Your task to perform on an android device: Go to Reddit.com Image 0: 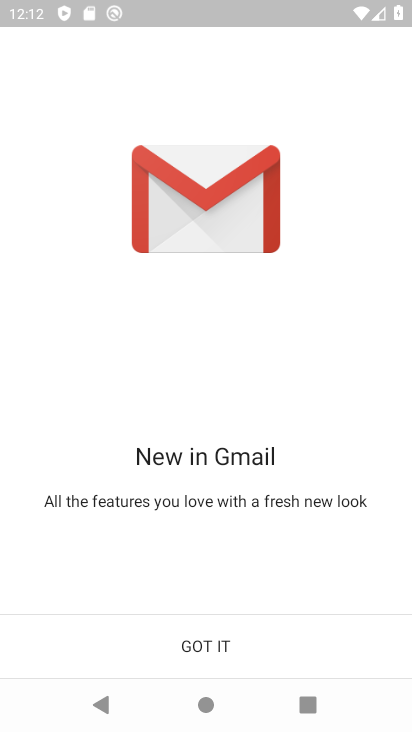
Step 0: click (218, 653)
Your task to perform on an android device: Go to Reddit.com Image 1: 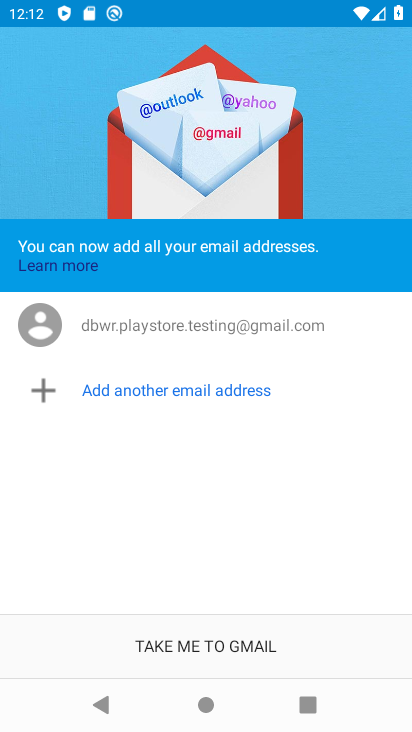
Step 1: press home button
Your task to perform on an android device: Go to Reddit.com Image 2: 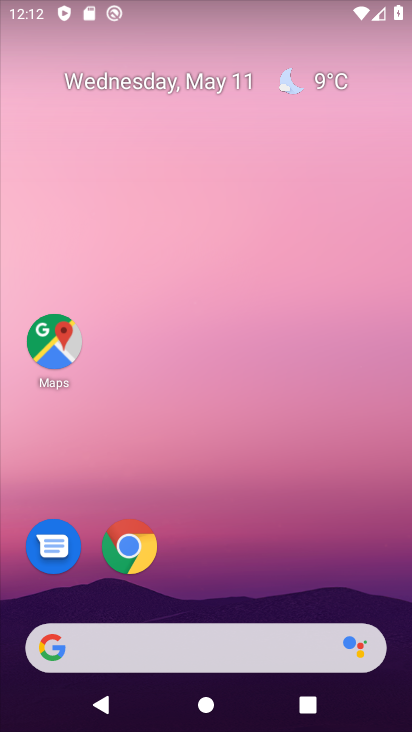
Step 2: drag from (332, 670) to (294, 118)
Your task to perform on an android device: Go to Reddit.com Image 3: 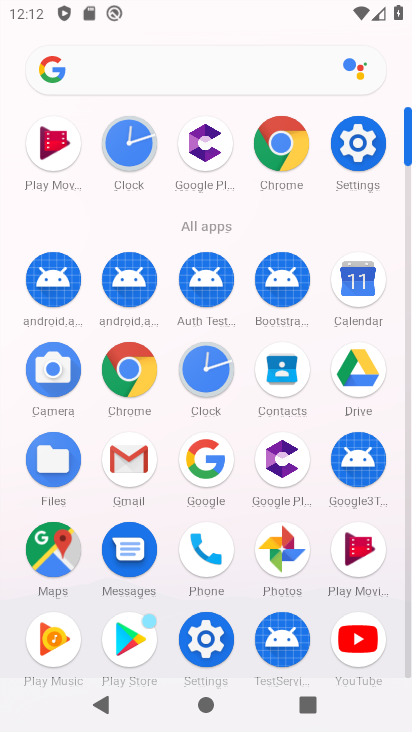
Step 3: click (152, 366)
Your task to perform on an android device: Go to Reddit.com Image 4: 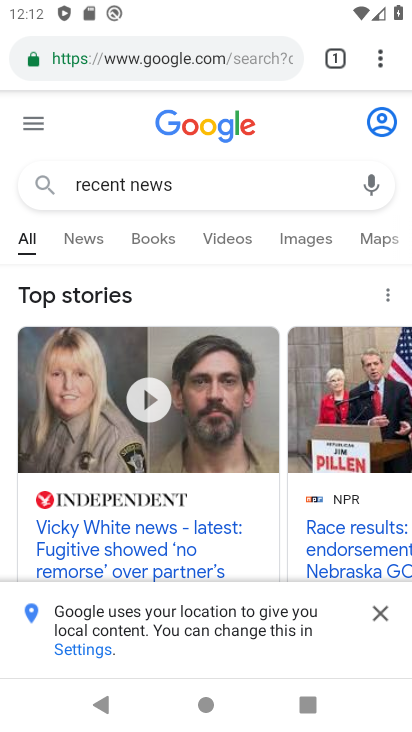
Step 4: click (258, 41)
Your task to perform on an android device: Go to Reddit.com Image 5: 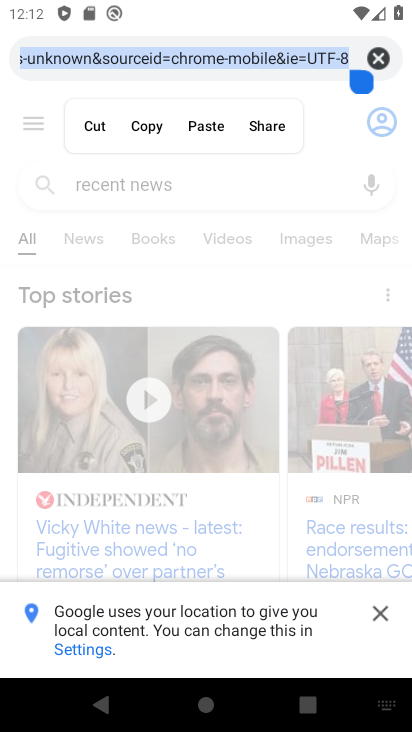
Step 5: click (373, 63)
Your task to perform on an android device: Go to Reddit.com Image 6: 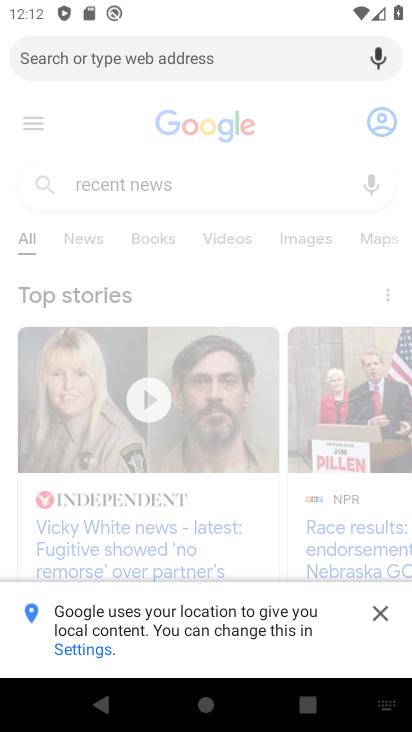
Step 6: type "reddit.com"
Your task to perform on an android device: Go to Reddit.com Image 7: 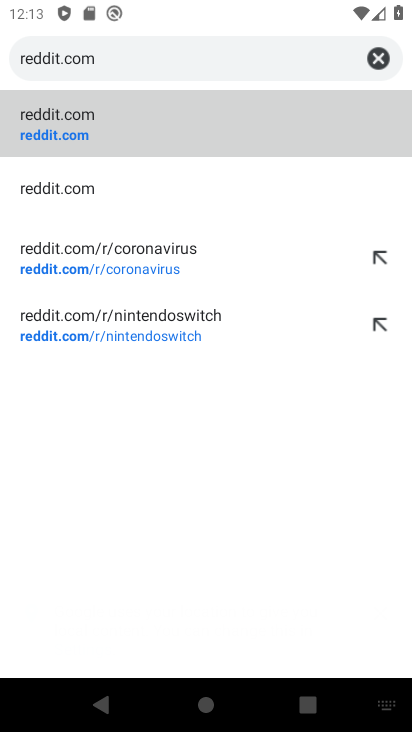
Step 7: click (146, 124)
Your task to perform on an android device: Go to Reddit.com Image 8: 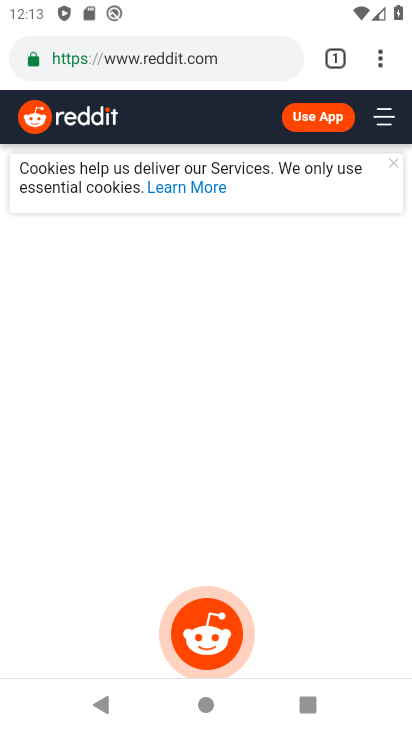
Step 8: task complete